Your task to perform on an android device: Open the calendar and show me this week's events? Image 0: 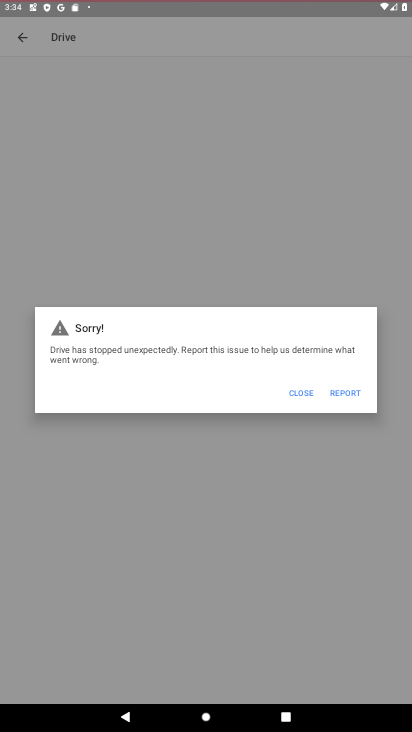
Step 0: click (188, 228)
Your task to perform on an android device: Open the calendar and show me this week's events? Image 1: 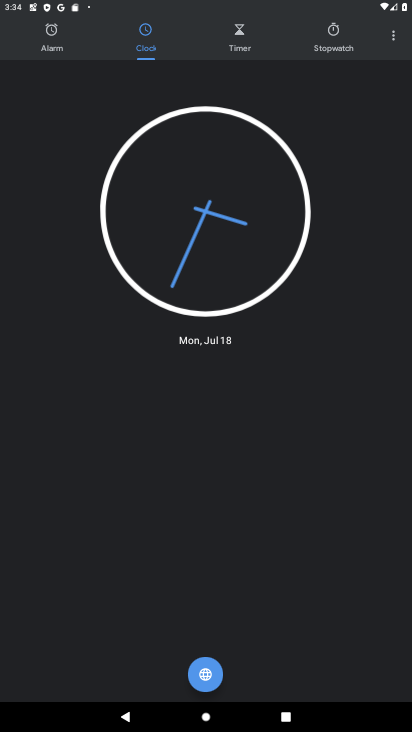
Step 1: press home button
Your task to perform on an android device: Open the calendar and show me this week's events? Image 2: 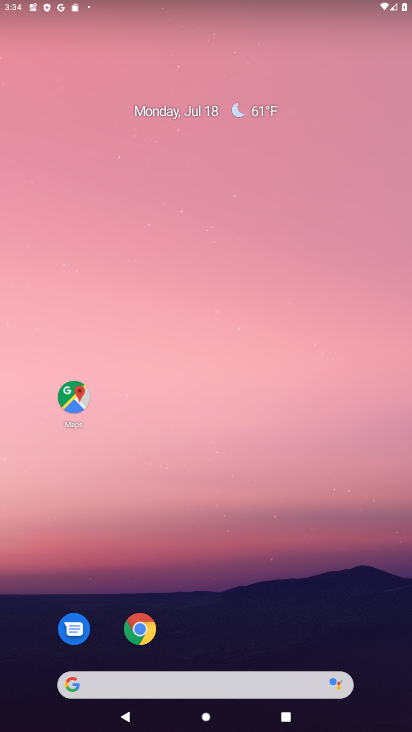
Step 2: drag from (232, 592) to (232, 230)
Your task to perform on an android device: Open the calendar and show me this week's events? Image 3: 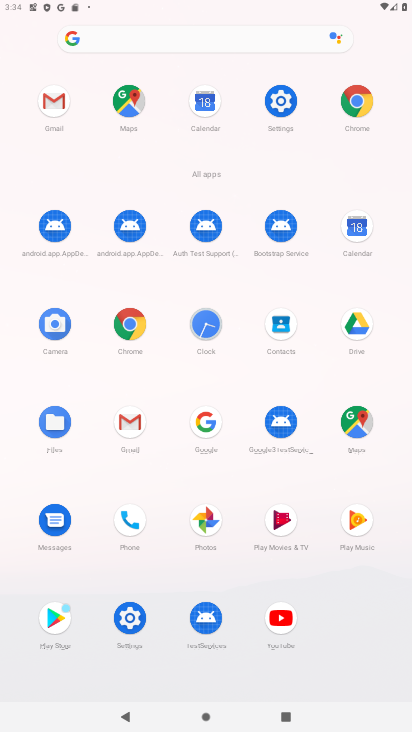
Step 3: click (355, 237)
Your task to perform on an android device: Open the calendar and show me this week's events? Image 4: 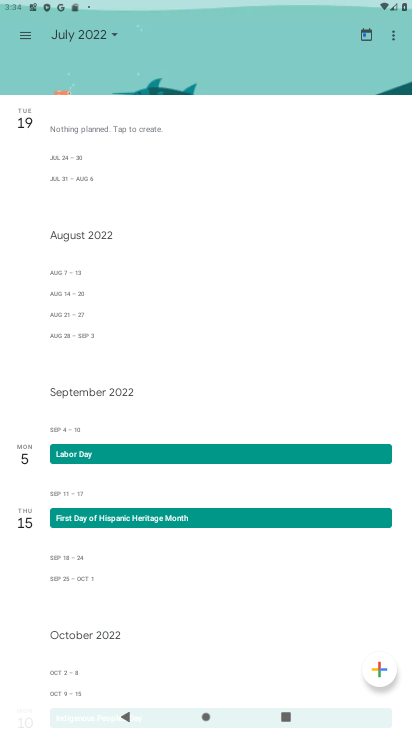
Step 4: click (84, 32)
Your task to perform on an android device: Open the calendar and show me this week's events? Image 5: 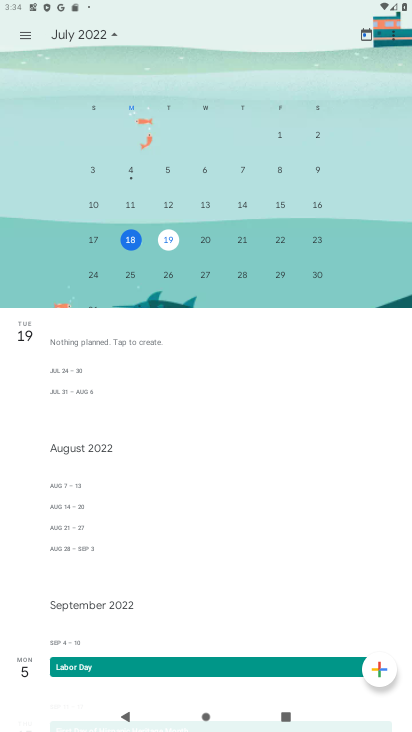
Step 5: click (167, 243)
Your task to perform on an android device: Open the calendar and show me this week's events? Image 6: 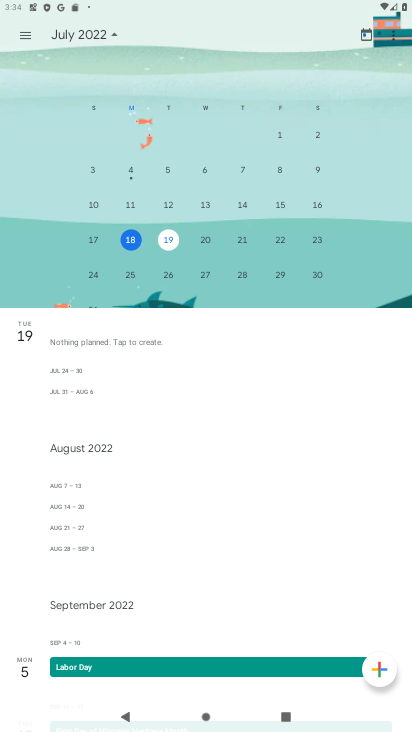
Step 6: click (210, 238)
Your task to perform on an android device: Open the calendar and show me this week's events? Image 7: 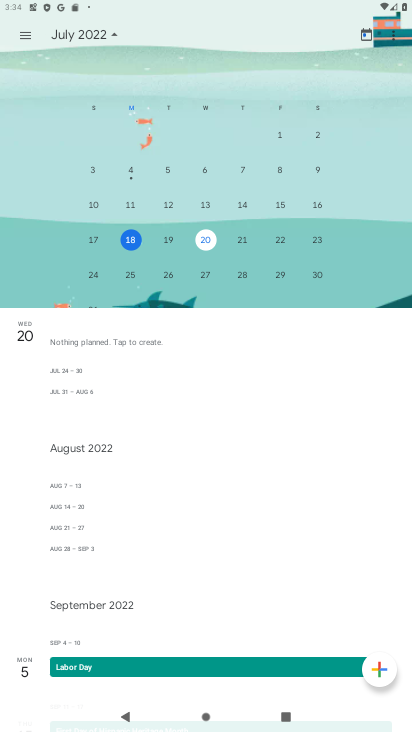
Step 7: click (243, 239)
Your task to perform on an android device: Open the calendar and show me this week's events? Image 8: 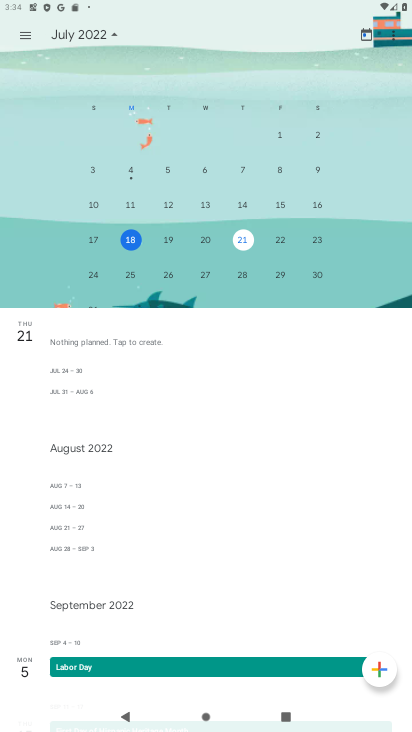
Step 8: click (282, 237)
Your task to perform on an android device: Open the calendar and show me this week's events? Image 9: 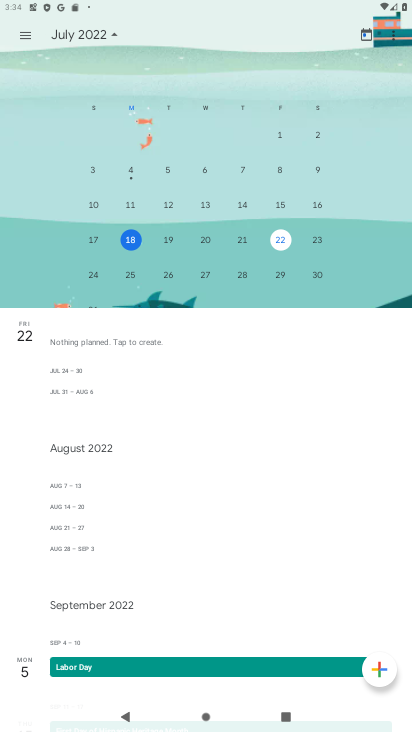
Step 9: click (303, 243)
Your task to perform on an android device: Open the calendar and show me this week's events? Image 10: 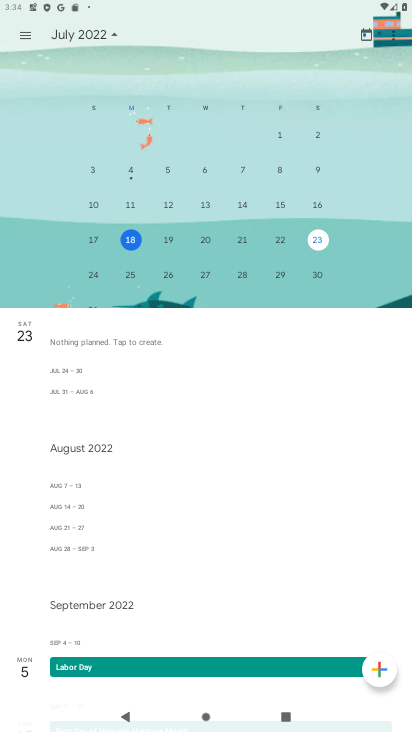
Step 10: click (311, 242)
Your task to perform on an android device: Open the calendar and show me this week's events? Image 11: 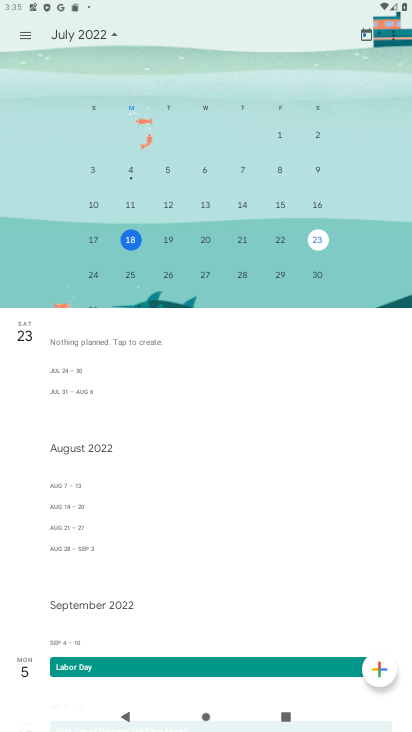
Step 11: task complete